Your task to perform on an android device: Show me productivity apps on the Play Store Image 0: 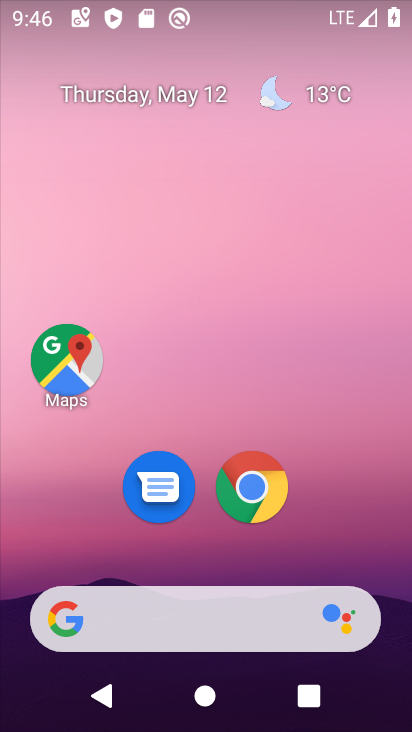
Step 0: drag from (377, 582) to (370, 36)
Your task to perform on an android device: Show me productivity apps on the Play Store Image 1: 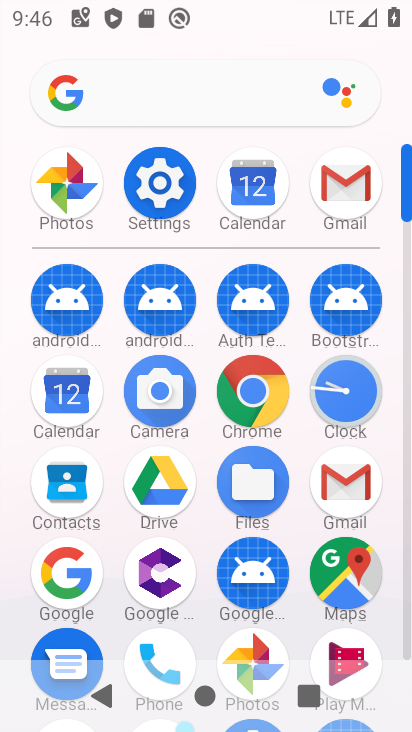
Step 1: click (408, 539)
Your task to perform on an android device: Show me productivity apps on the Play Store Image 2: 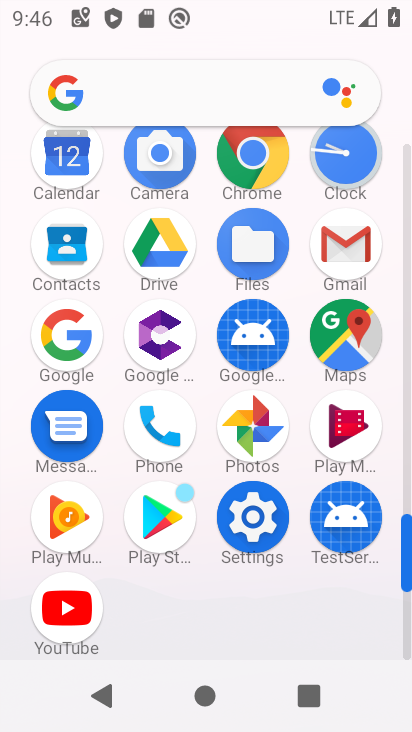
Step 2: click (167, 526)
Your task to perform on an android device: Show me productivity apps on the Play Store Image 3: 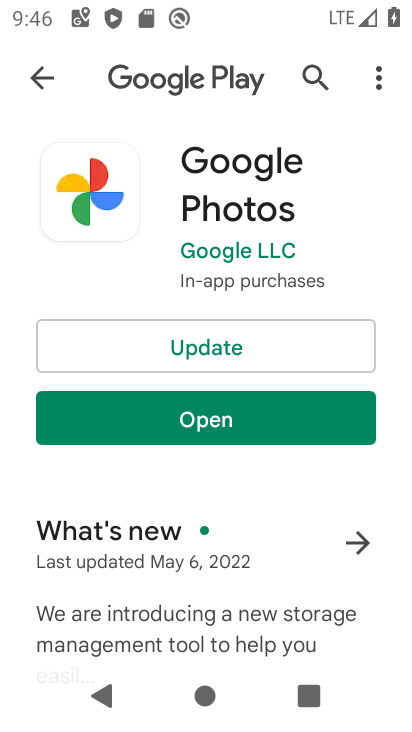
Step 3: click (41, 73)
Your task to perform on an android device: Show me productivity apps on the Play Store Image 4: 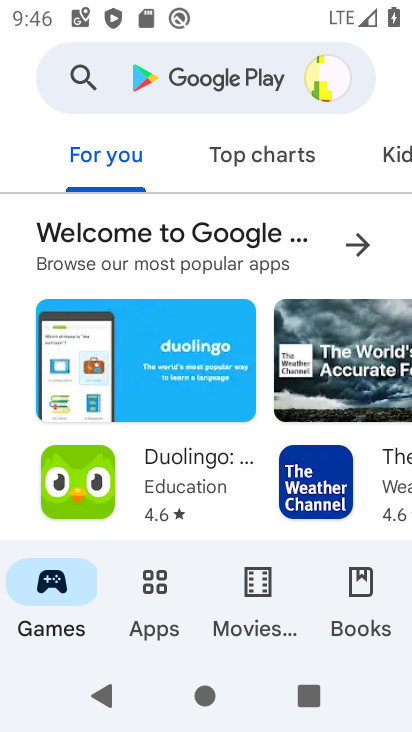
Step 4: click (151, 582)
Your task to perform on an android device: Show me productivity apps on the Play Store Image 5: 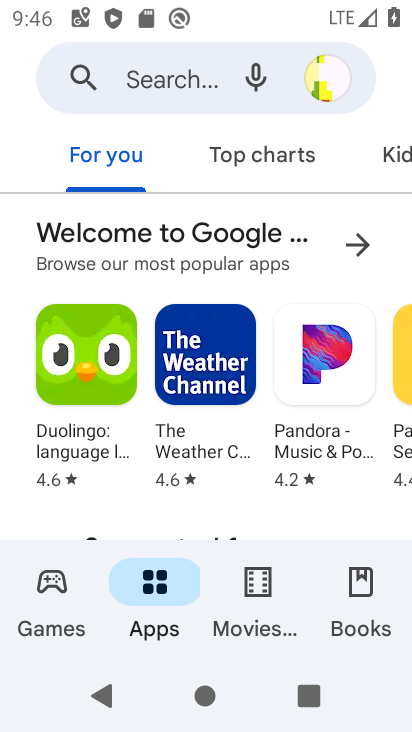
Step 5: drag from (297, 155) to (34, 144)
Your task to perform on an android device: Show me productivity apps on the Play Store Image 6: 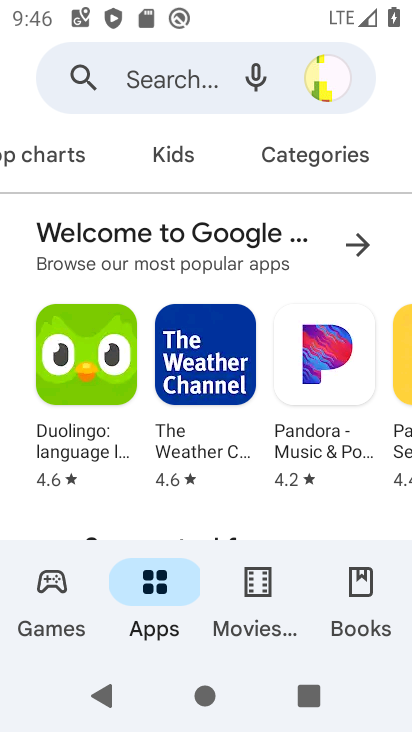
Step 6: click (327, 151)
Your task to perform on an android device: Show me productivity apps on the Play Store Image 7: 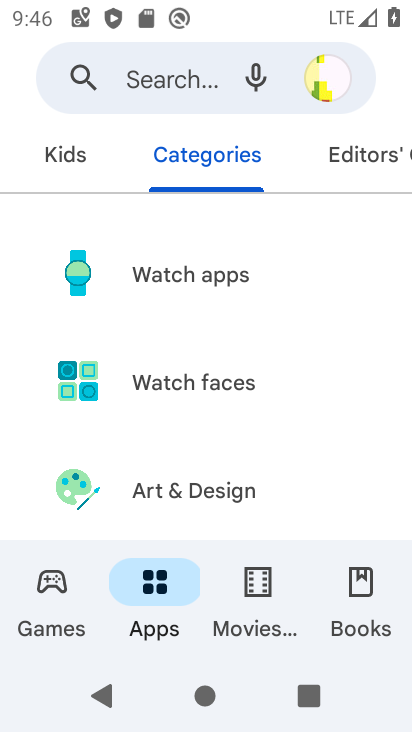
Step 7: drag from (243, 459) to (270, 26)
Your task to perform on an android device: Show me productivity apps on the Play Store Image 8: 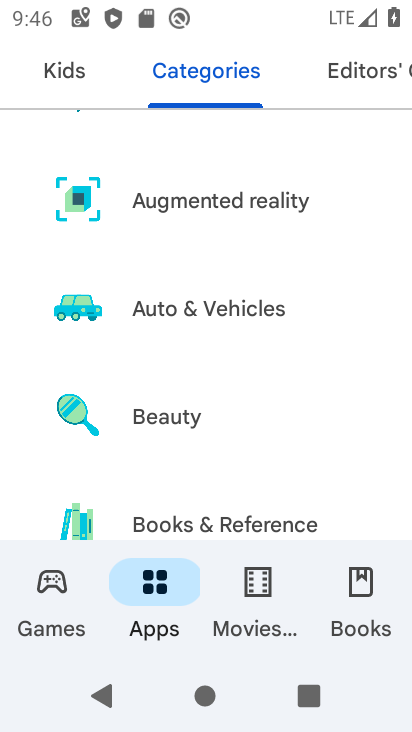
Step 8: drag from (260, 411) to (295, 20)
Your task to perform on an android device: Show me productivity apps on the Play Store Image 9: 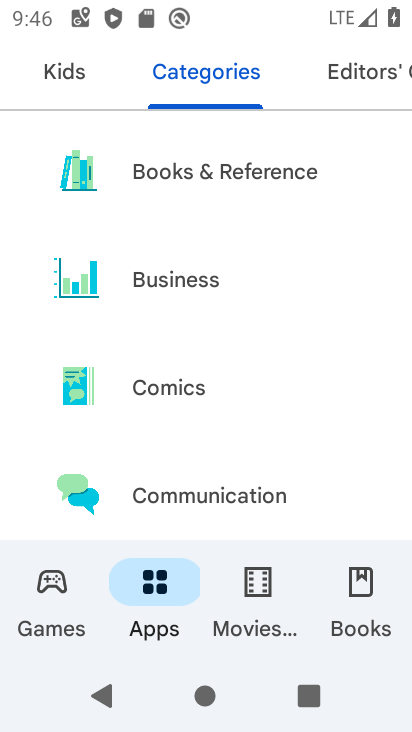
Step 9: drag from (259, 385) to (275, 21)
Your task to perform on an android device: Show me productivity apps on the Play Store Image 10: 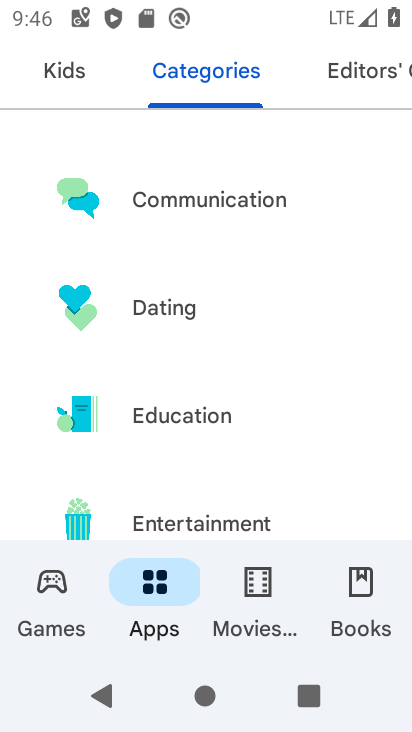
Step 10: drag from (240, 404) to (262, 50)
Your task to perform on an android device: Show me productivity apps on the Play Store Image 11: 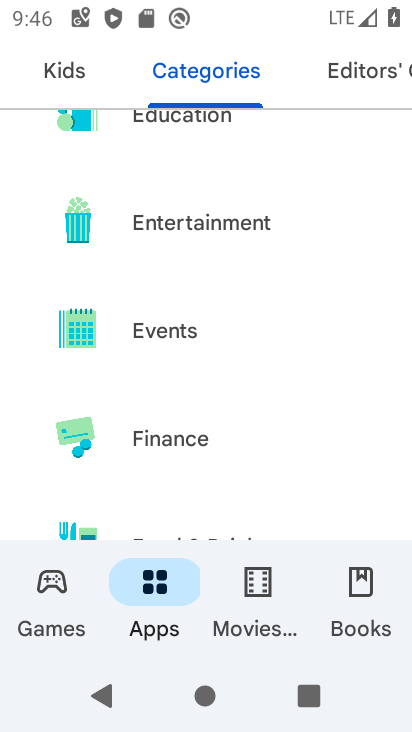
Step 11: drag from (243, 435) to (249, 52)
Your task to perform on an android device: Show me productivity apps on the Play Store Image 12: 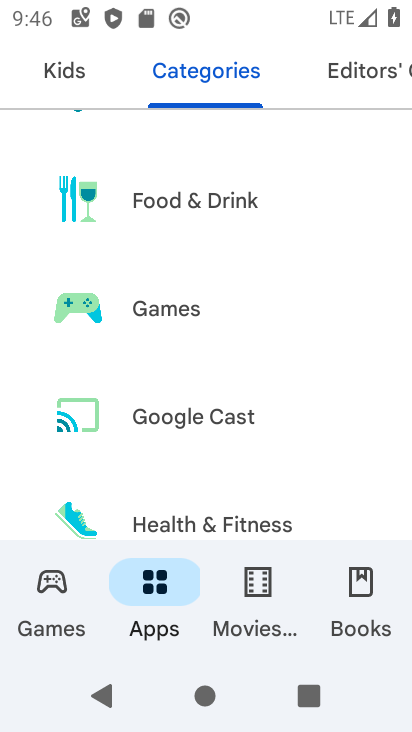
Step 12: drag from (263, 395) to (268, 57)
Your task to perform on an android device: Show me productivity apps on the Play Store Image 13: 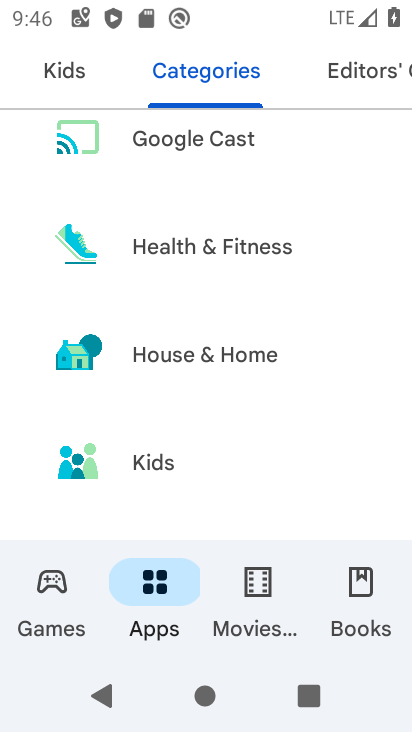
Step 13: drag from (270, 449) to (280, 80)
Your task to perform on an android device: Show me productivity apps on the Play Store Image 14: 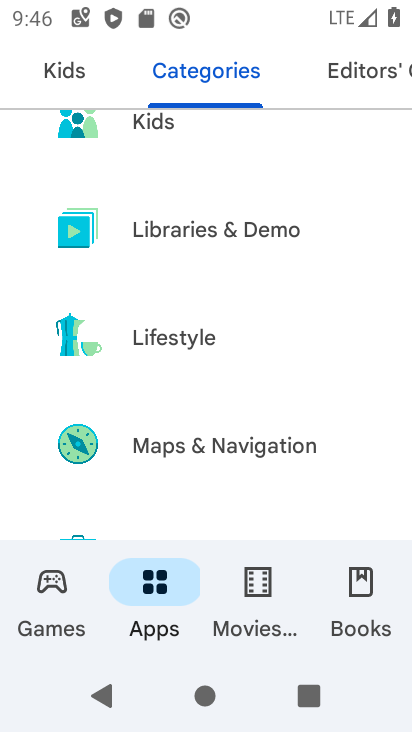
Step 14: drag from (266, 378) to (284, 53)
Your task to perform on an android device: Show me productivity apps on the Play Store Image 15: 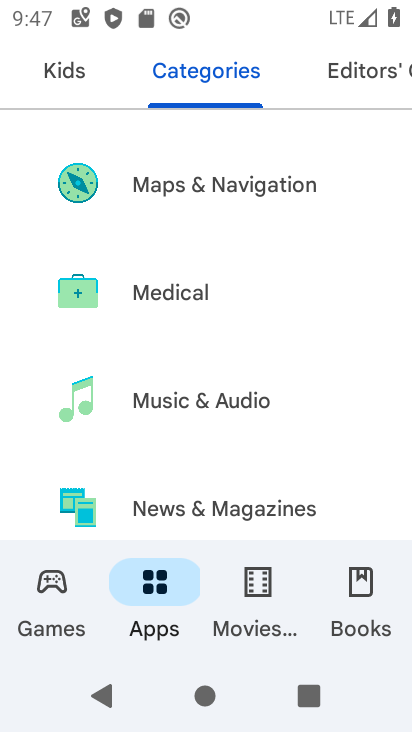
Step 15: drag from (295, 427) to (280, 95)
Your task to perform on an android device: Show me productivity apps on the Play Store Image 16: 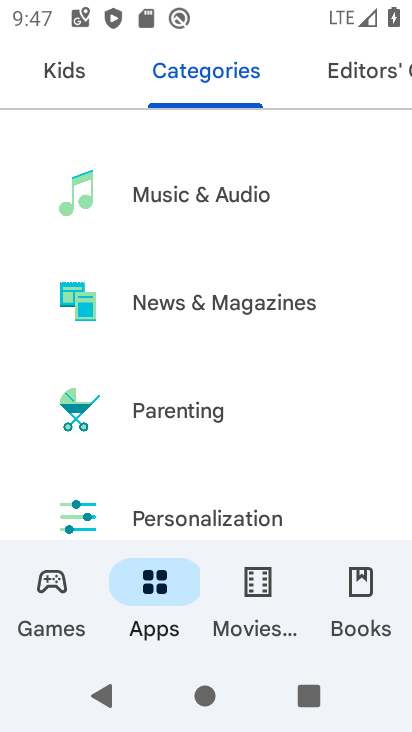
Step 16: drag from (250, 420) to (259, 122)
Your task to perform on an android device: Show me productivity apps on the Play Store Image 17: 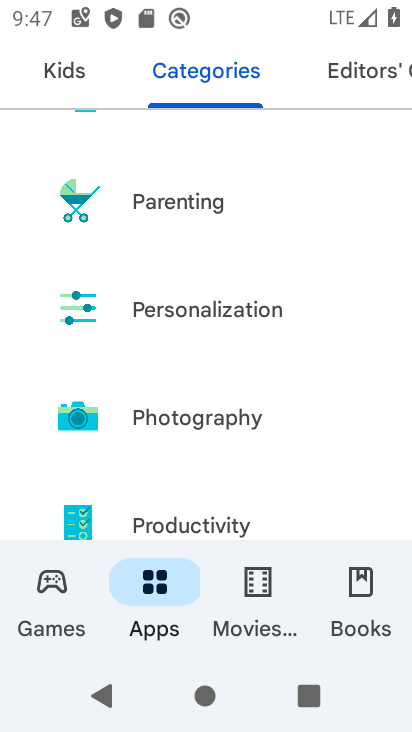
Step 17: drag from (284, 439) to (318, 145)
Your task to perform on an android device: Show me productivity apps on the Play Store Image 18: 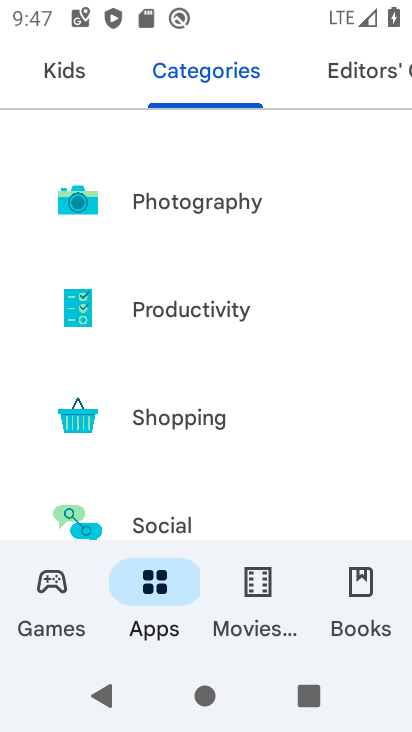
Step 18: click (181, 313)
Your task to perform on an android device: Show me productivity apps on the Play Store Image 19: 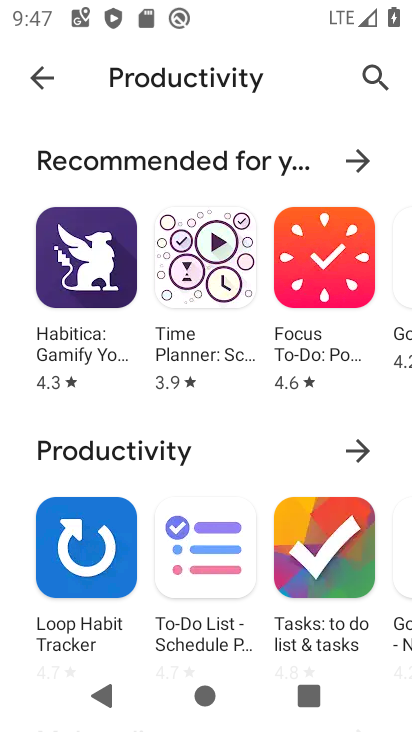
Step 19: task complete